Your task to perform on an android device: toggle javascript in the chrome app Image 0: 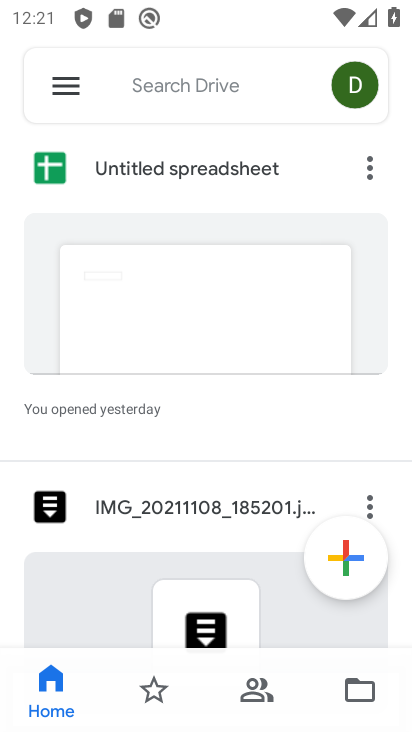
Step 0: press home button
Your task to perform on an android device: toggle javascript in the chrome app Image 1: 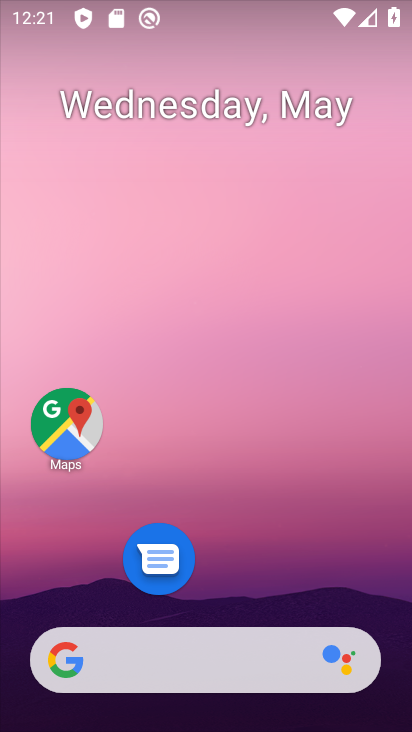
Step 1: drag from (261, 592) to (273, 183)
Your task to perform on an android device: toggle javascript in the chrome app Image 2: 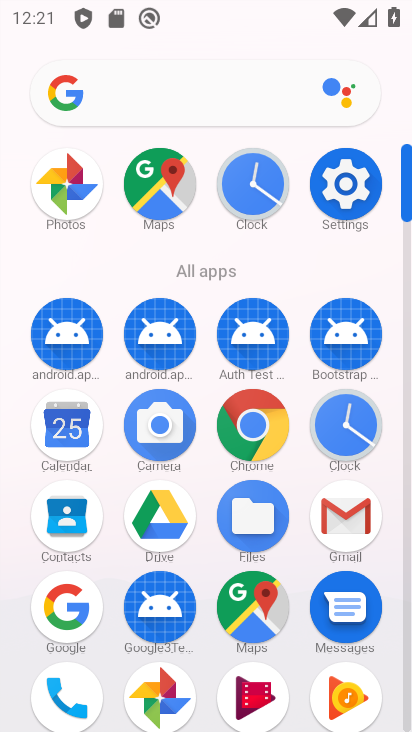
Step 2: click (253, 406)
Your task to perform on an android device: toggle javascript in the chrome app Image 3: 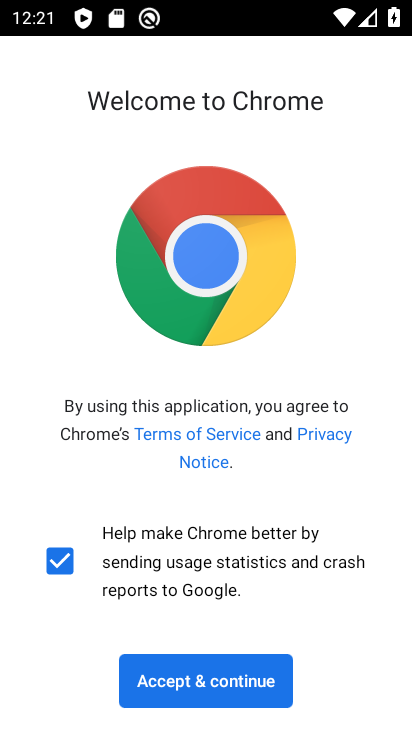
Step 3: click (129, 675)
Your task to perform on an android device: toggle javascript in the chrome app Image 4: 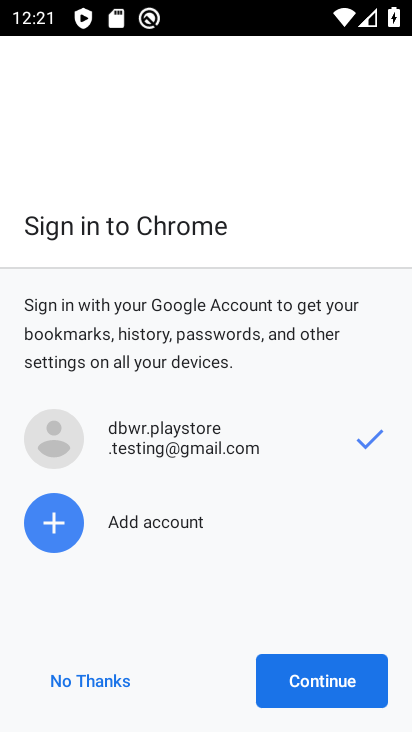
Step 4: click (300, 659)
Your task to perform on an android device: toggle javascript in the chrome app Image 5: 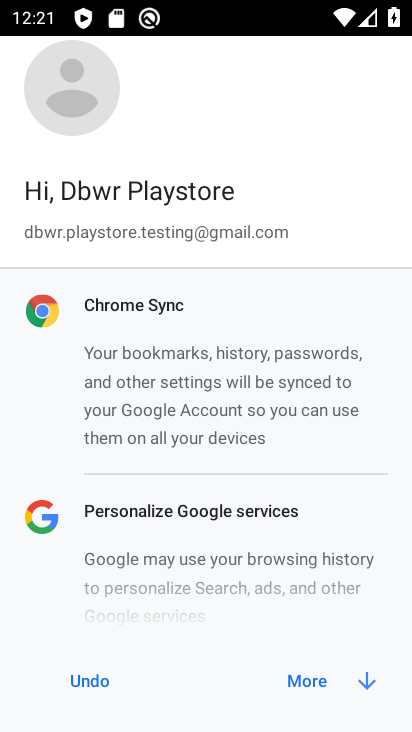
Step 5: click (365, 679)
Your task to perform on an android device: toggle javascript in the chrome app Image 6: 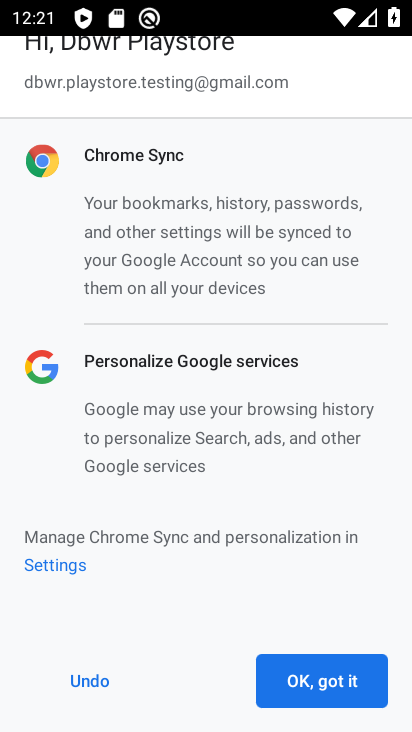
Step 6: click (365, 679)
Your task to perform on an android device: toggle javascript in the chrome app Image 7: 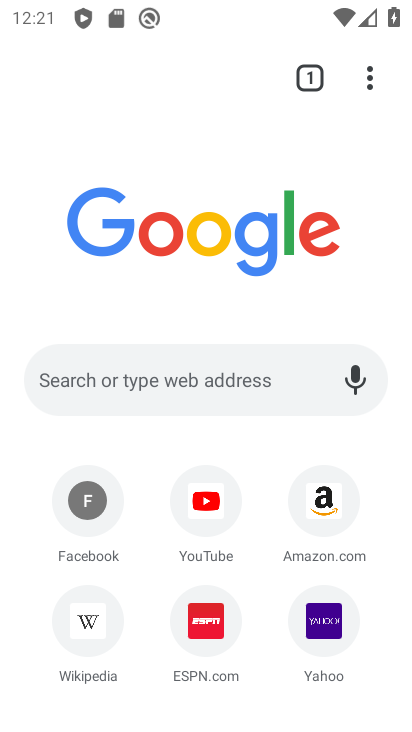
Step 7: click (369, 85)
Your task to perform on an android device: toggle javascript in the chrome app Image 8: 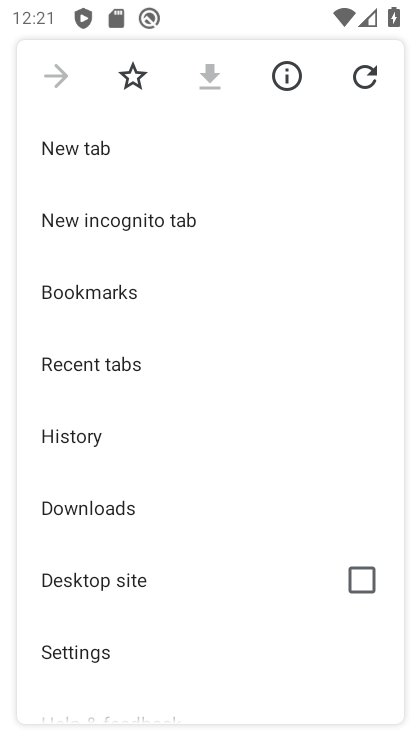
Step 8: drag from (223, 431) to (242, 250)
Your task to perform on an android device: toggle javascript in the chrome app Image 9: 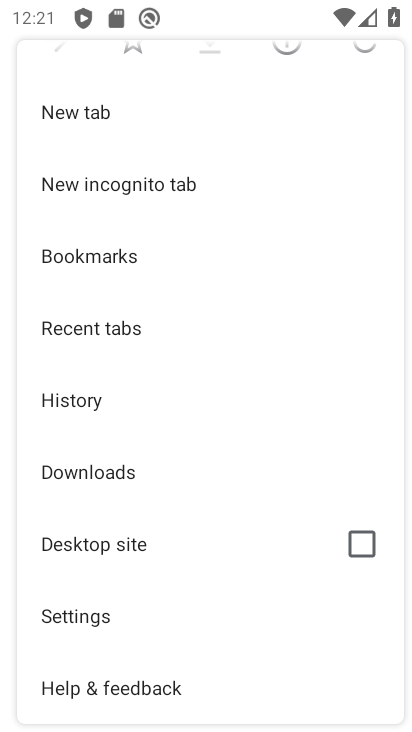
Step 9: click (111, 617)
Your task to perform on an android device: toggle javascript in the chrome app Image 10: 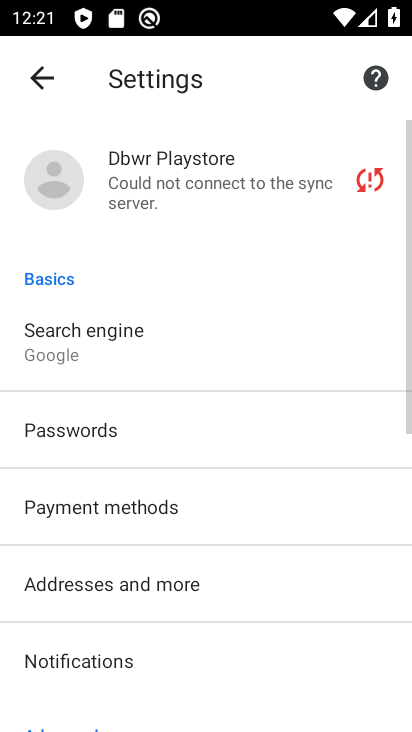
Step 10: drag from (111, 617) to (81, 240)
Your task to perform on an android device: toggle javascript in the chrome app Image 11: 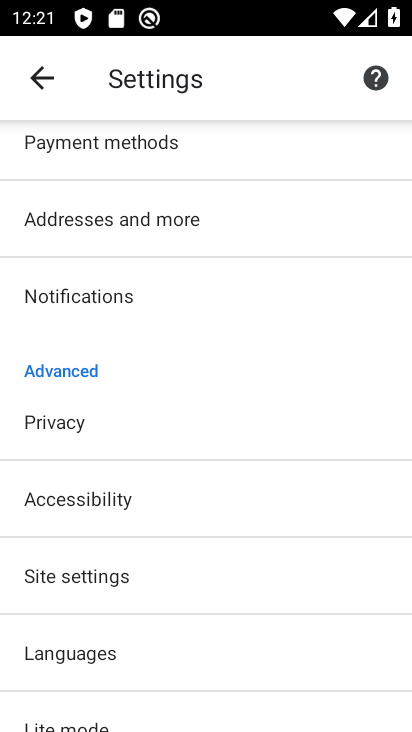
Step 11: drag from (129, 664) to (133, 602)
Your task to perform on an android device: toggle javascript in the chrome app Image 12: 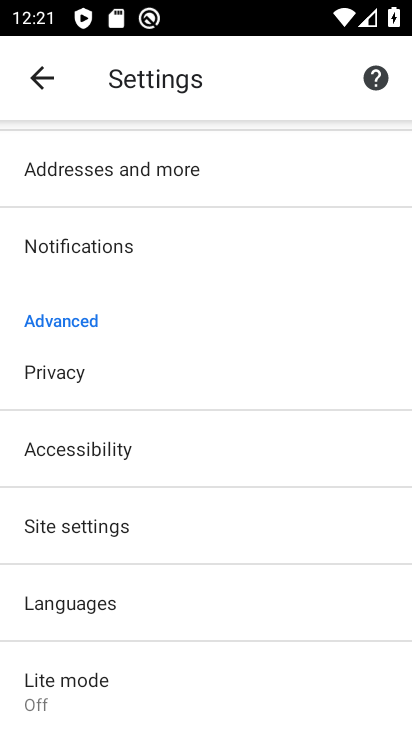
Step 12: click (103, 522)
Your task to perform on an android device: toggle javascript in the chrome app Image 13: 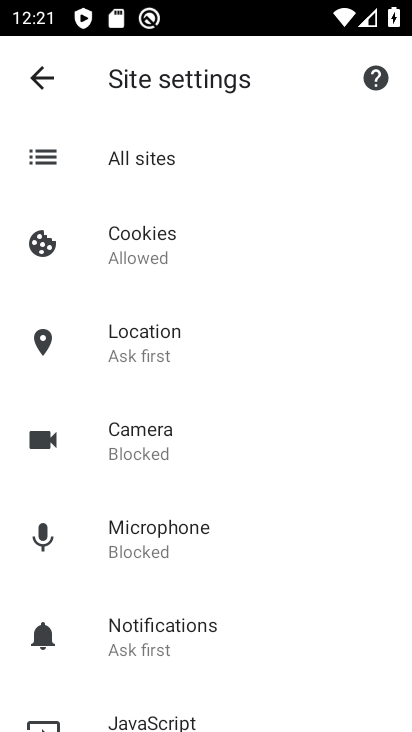
Step 13: click (146, 688)
Your task to perform on an android device: toggle javascript in the chrome app Image 14: 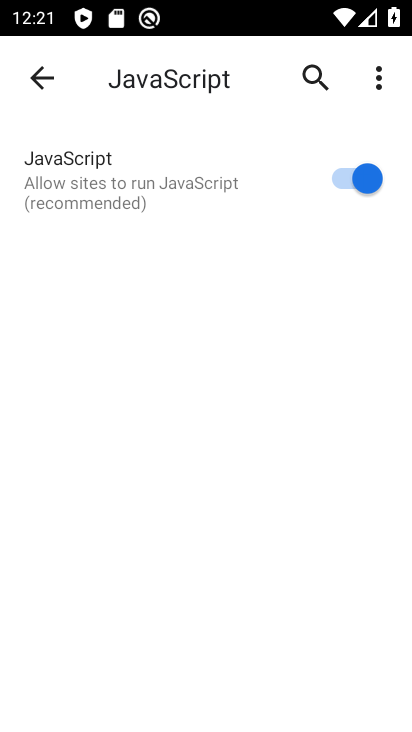
Step 14: click (347, 174)
Your task to perform on an android device: toggle javascript in the chrome app Image 15: 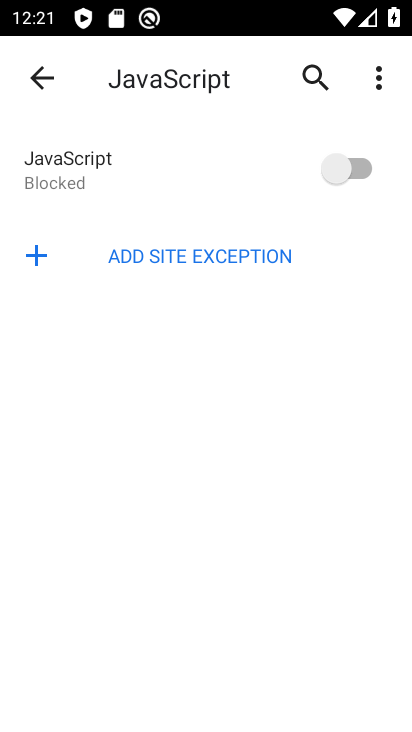
Step 15: task complete